Your task to perform on an android device: check out phone information Image 0: 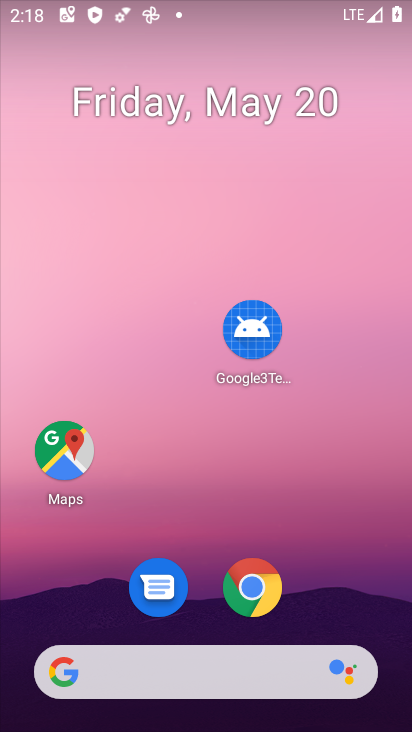
Step 0: drag from (349, 469) to (286, 138)
Your task to perform on an android device: check out phone information Image 1: 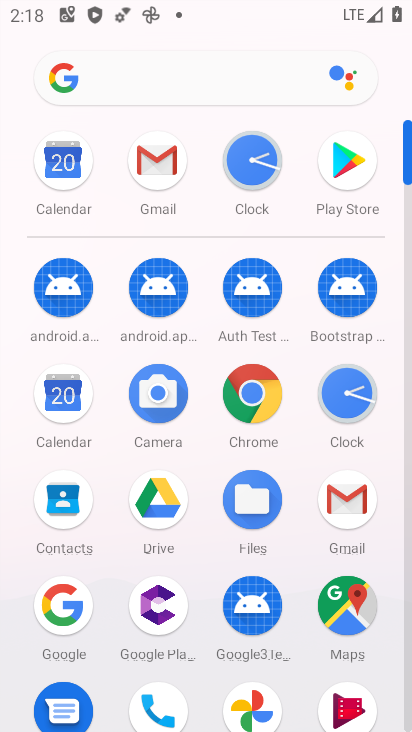
Step 1: drag from (199, 564) to (199, 162)
Your task to perform on an android device: check out phone information Image 2: 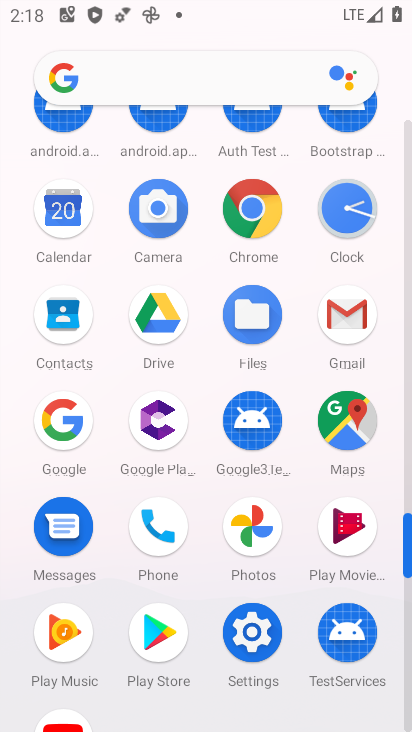
Step 2: drag from (199, 588) to (198, 234)
Your task to perform on an android device: check out phone information Image 3: 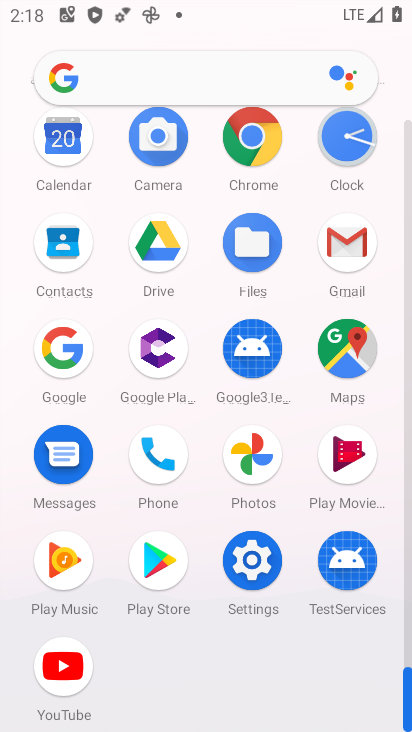
Step 3: click (252, 558)
Your task to perform on an android device: check out phone information Image 4: 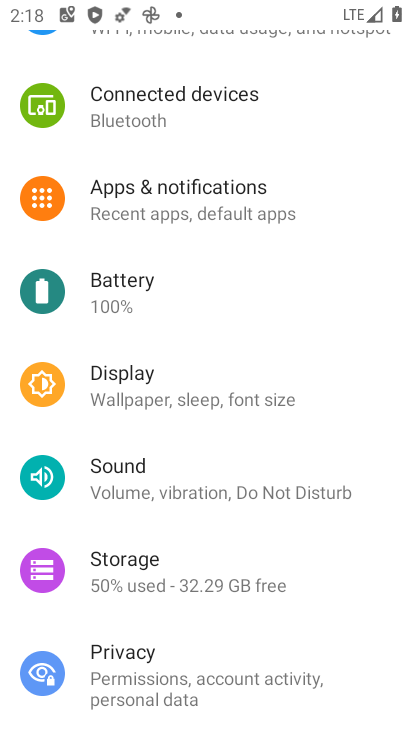
Step 4: drag from (214, 525) to (214, 199)
Your task to perform on an android device: check out phone information Image 5: 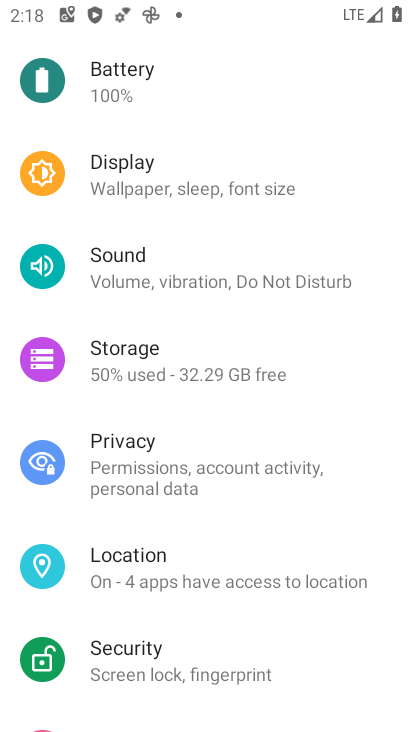
Step 5: drag from (201, 601) to (172, 285)
Your task to perform on an android device: check out phone information Image 6: 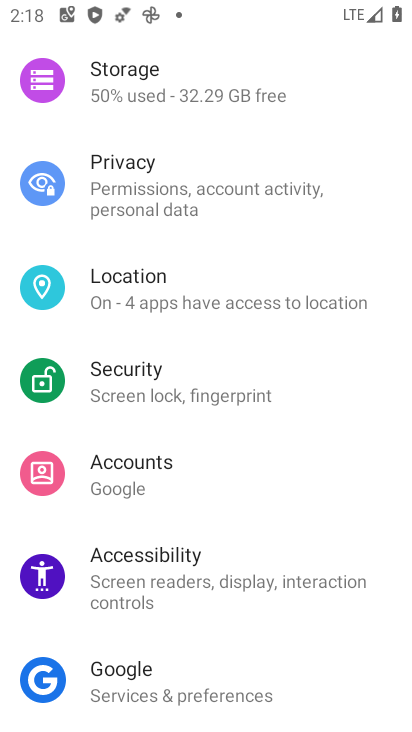
Step 6: drag from (195, 508) to (170, 170)
Your task to perform on an android device: check out phone information Image 7: 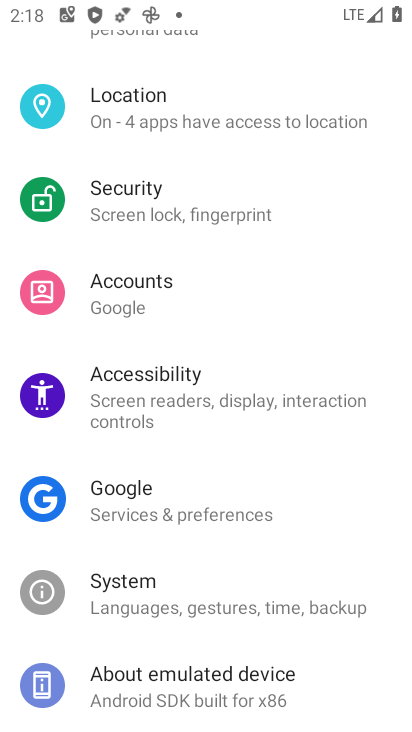
Step 7: click (189, 679)
Your task to perform on an android device: check out phone information Image 8: 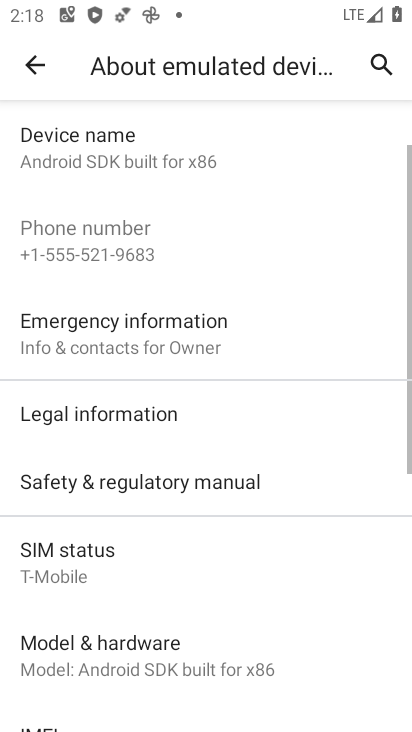
Step 8: task complete